Your task to perform on an android device: turn off picture-in-picture Image 0: 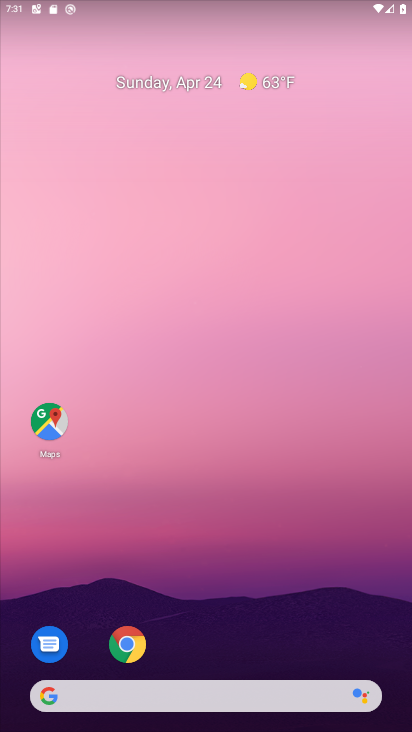
Step 0: press home button
Your task to perform on an android device: turn off picture-in-picture Image 1: 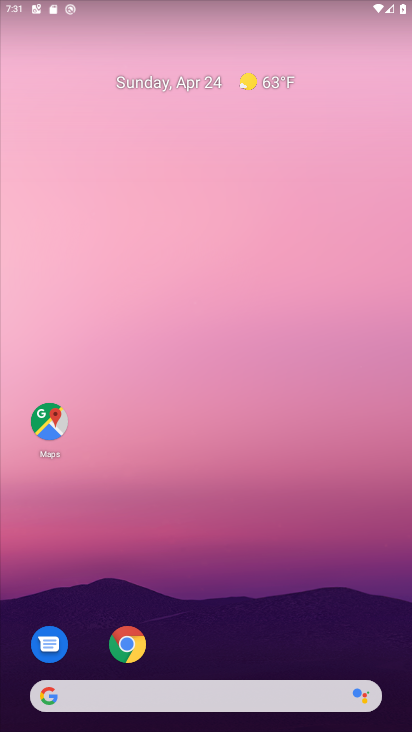
Step 1: click (127, 641)
Your task to perform on an android device: turn off picture-in-picture Image 2: 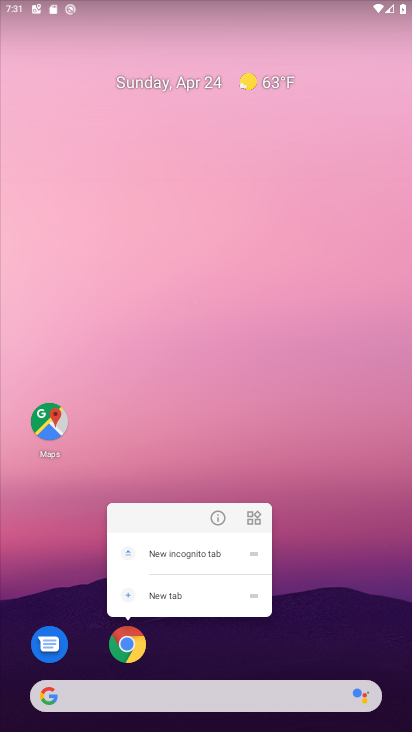
Step 2: click (219, 516)
Your task to perform on an android device: turn off picture-in-picture Image 3: 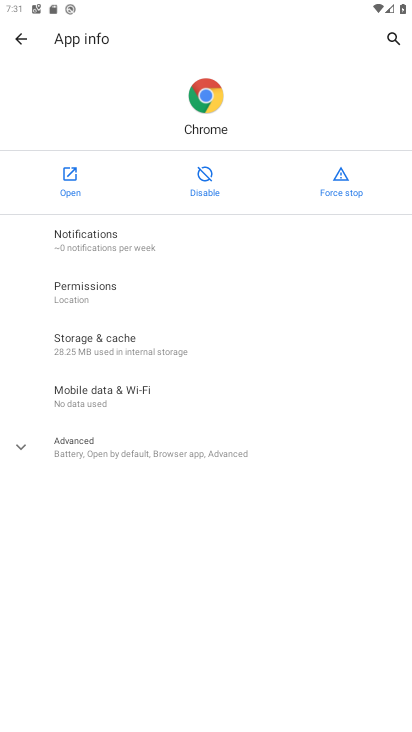
Step 3: click (28, 446)
Your task to perform on an android device: turn off picture-in-picture Image 4: 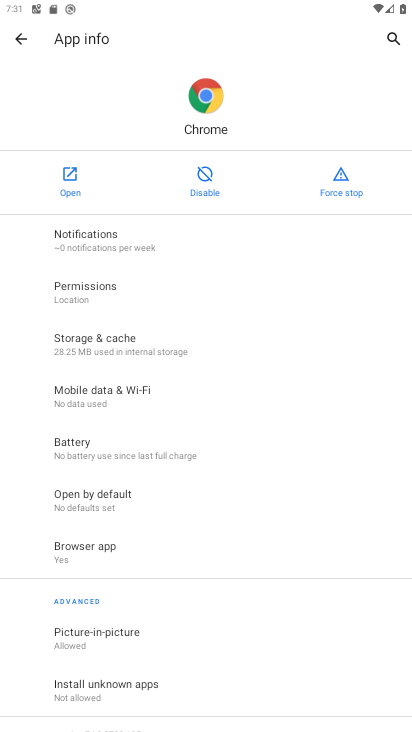
Step 4: click (107, 640)
Your task to perform on an android device: turn off picture-in-picture Image 5: 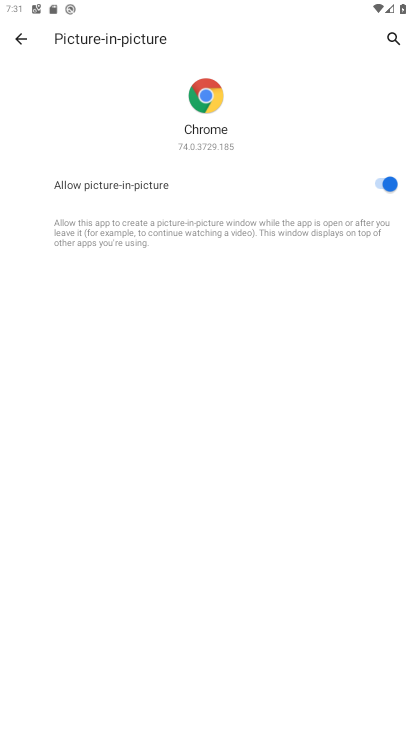
Step 5: click (382, 184)
Your task to perform on an android device: turn off picture-in-picture Image 6: 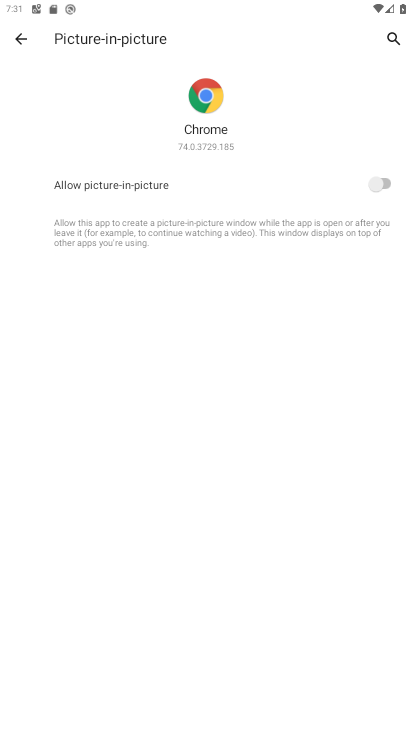
Step 6: task complete